Your task to perform on an android device: uninstall "NewsBreak: Local News & Alerts" Image 0: 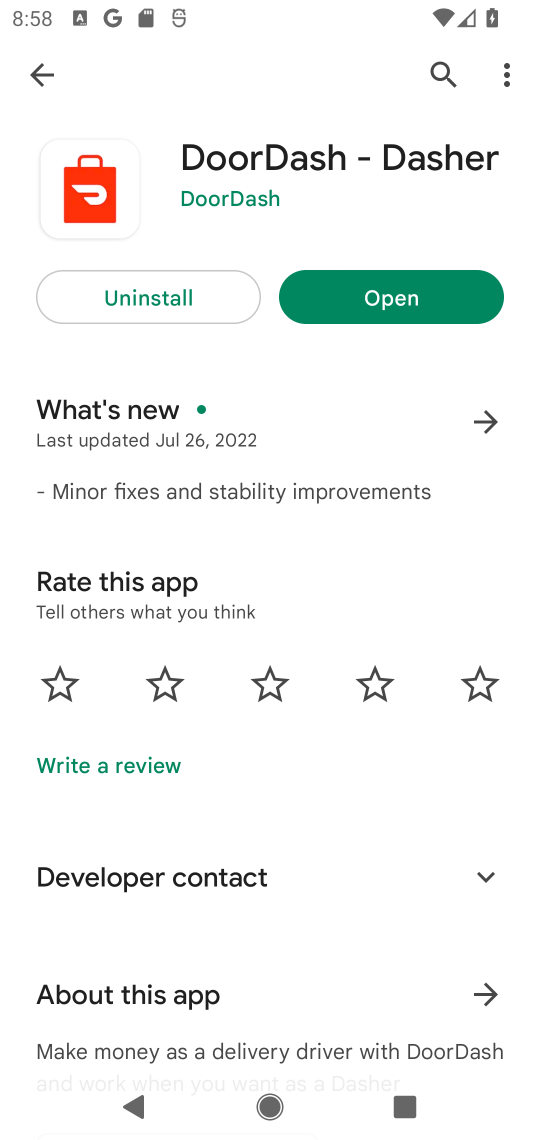
Step 0: press home button
Your task to perform on an android device: uninstall "NewsBreak: Local News & Alerts" Image 1: 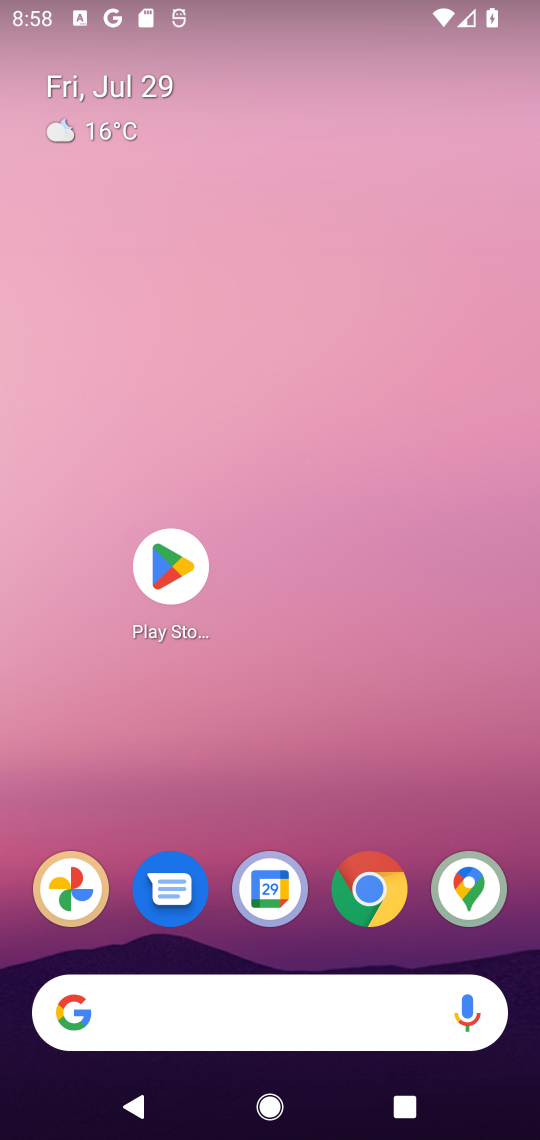
Step 1: click (160, 568)
Your task to perform on an android device: uninstall "NewsBreak: Local News & Alerts" Image 2: 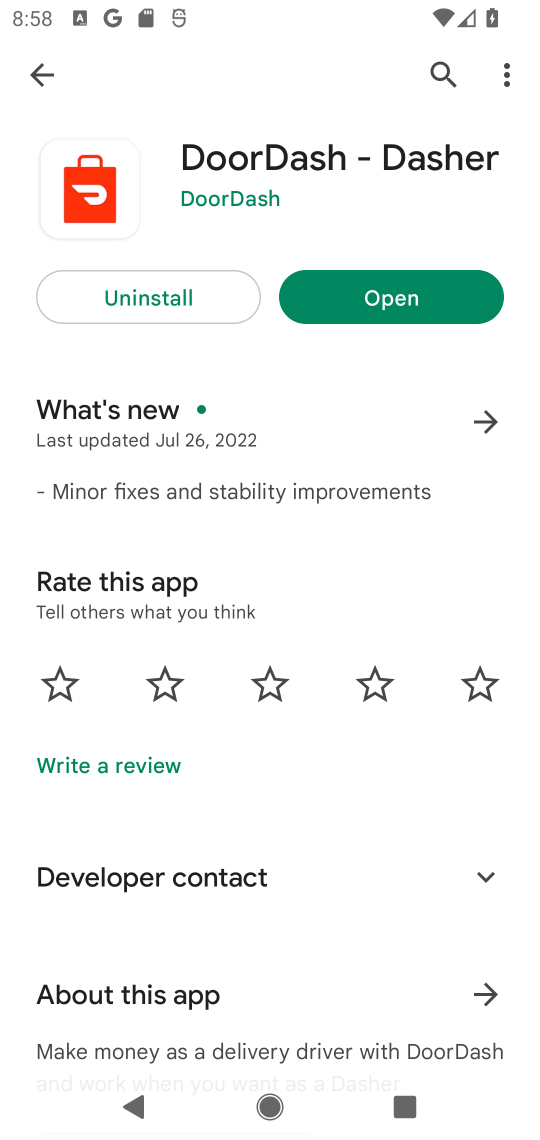
Step 2: click (436, 70)
Your task to perform on an android device: uninstall "NewsBreak: Local News & Alerts" Image 3: 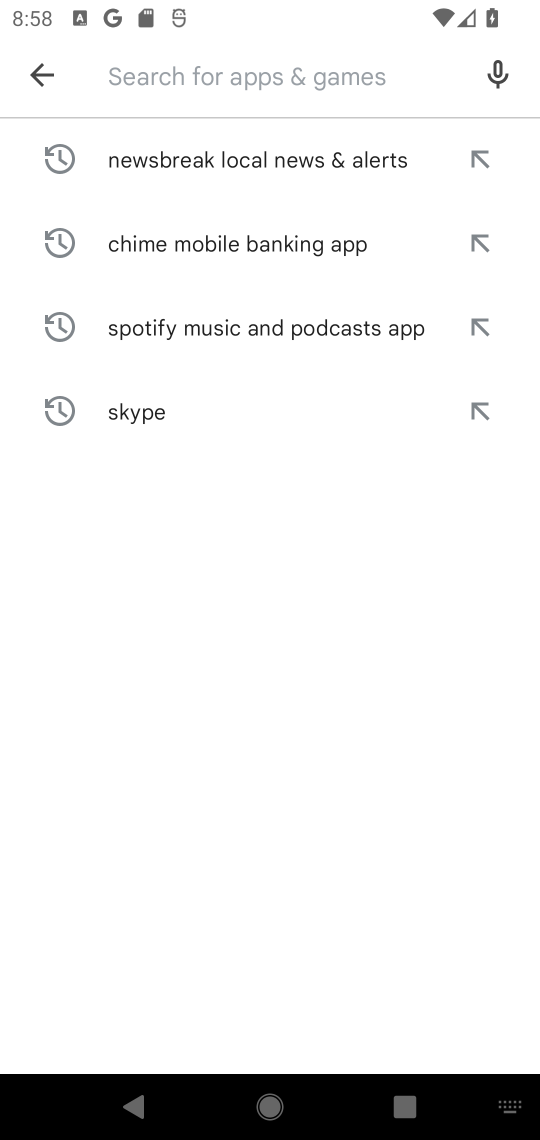
Step 3: click (318, 169)
Your task to perform on an android device: uninstall "NewsBreak: Local News & Alerts" Image 4: 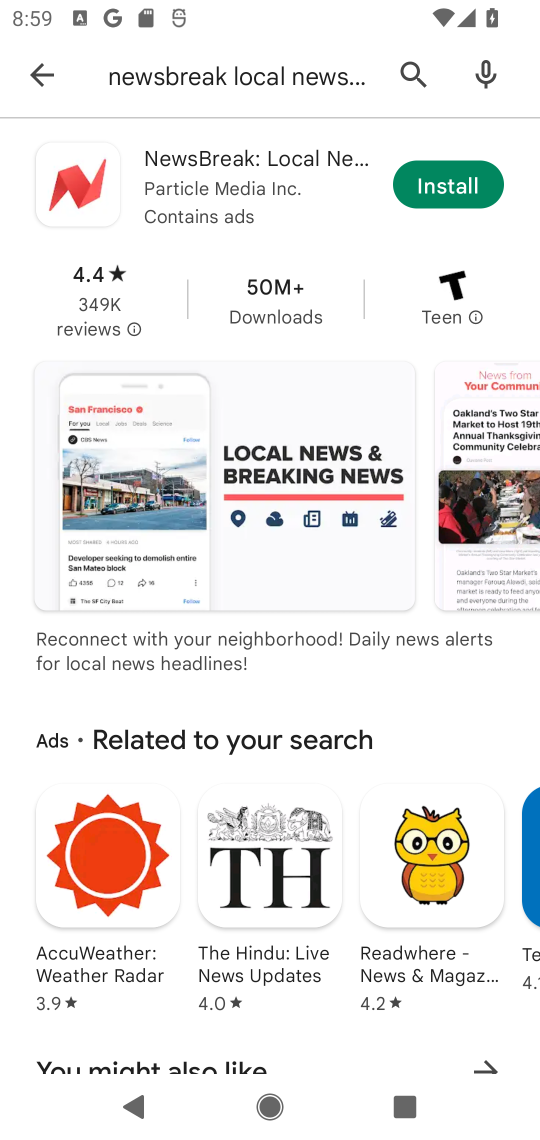
Step 4: task complete